Your task to perform on an android device: Go to battery settings Image 0: 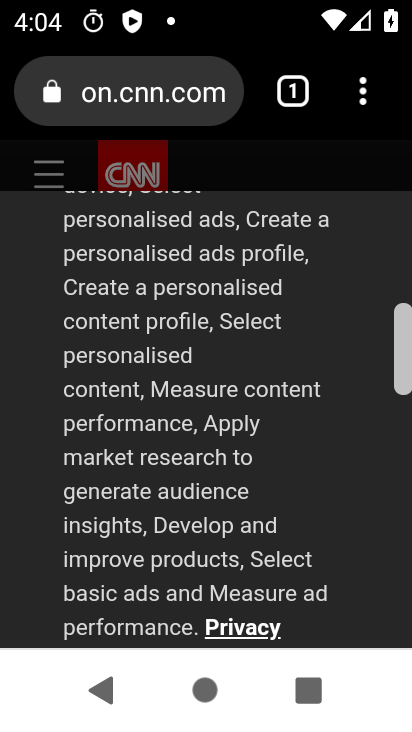
Step 0: press home button
Your task to perform on an android device: Go to battery settings Image 1: 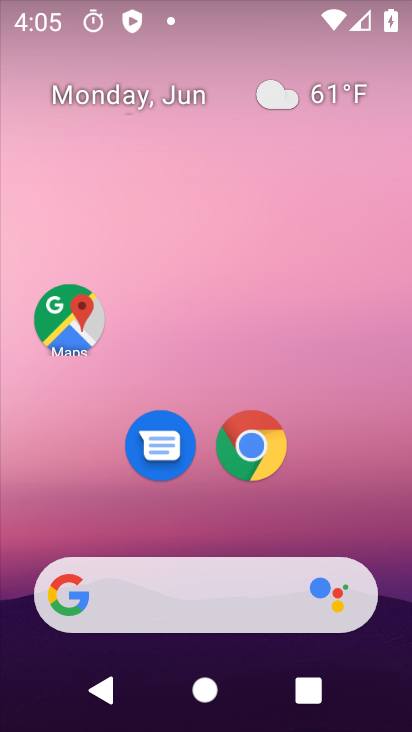
Step 1: drag from (195, 532) to (220, 91)
Your task to perform on an android device: Go to battery settings Image 2: 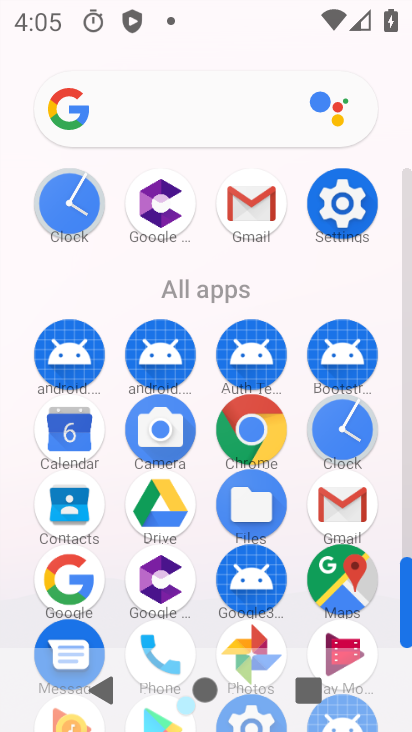
Step 2: click (335, 215)
Your task to perform on an android device: Go to battery settings Image 3: 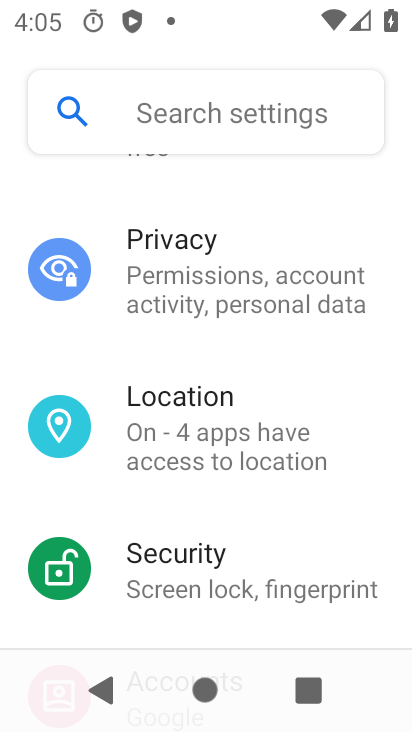
Step 3: drag from (202, 248) to (206, 498)
Your task to perform on an android device: Go to battery settings Image 4: 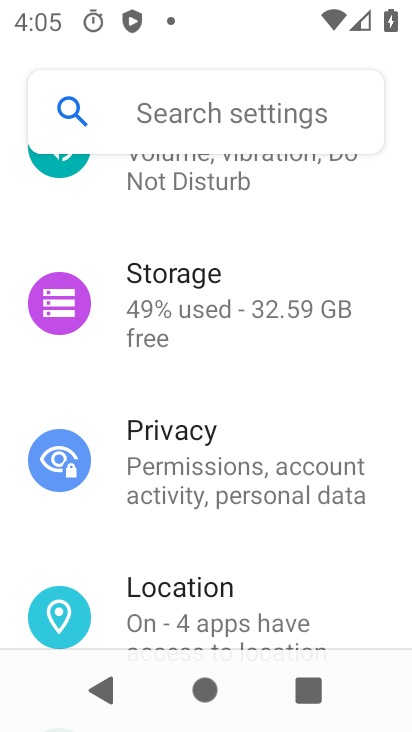
Step 4: drag from (213, 300) to (211, 582)
Your task to perform on an android device: Go to battery settings Image 5: 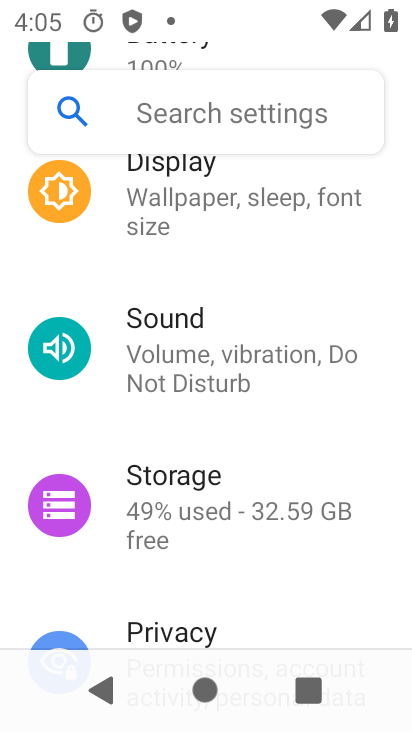
Step 5: drag from (246, 331) to (246, 623)
Your task to perform on an android device: Go to battery settings Image 6: 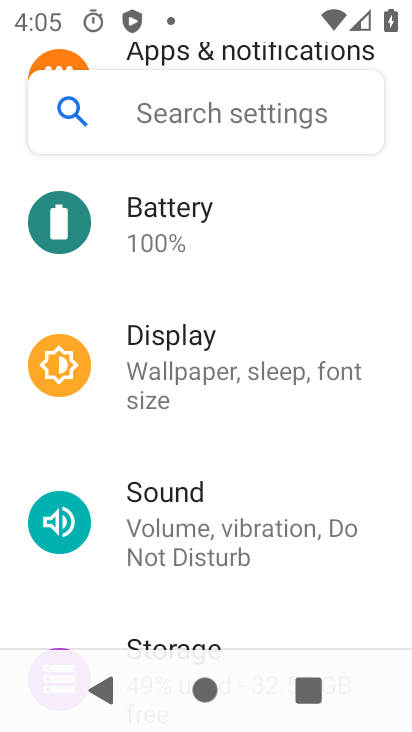
Step 6: click (163, 235)
Your task to perform on an android device: Go to battery settings Image 7: 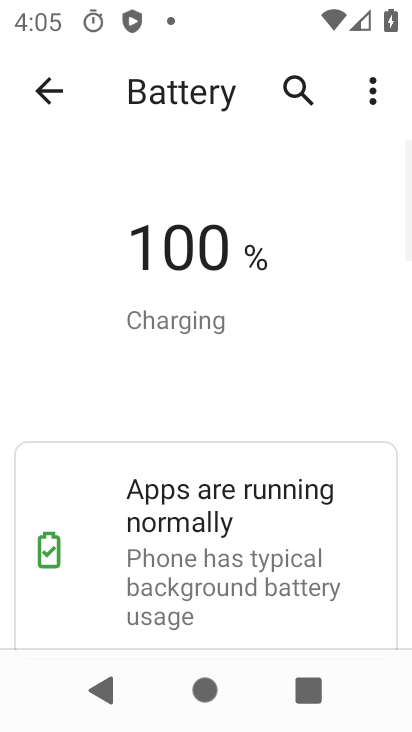
Step 7: task complete